Your task to perform on an android device: Open Chrome and go to settings Image 0: 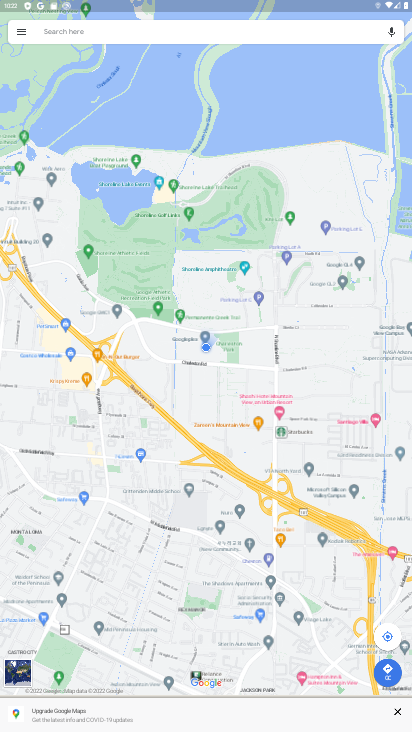
Step 0: press home button
Your task to perform on an android device: Open Chrome and go to settings Image 1: 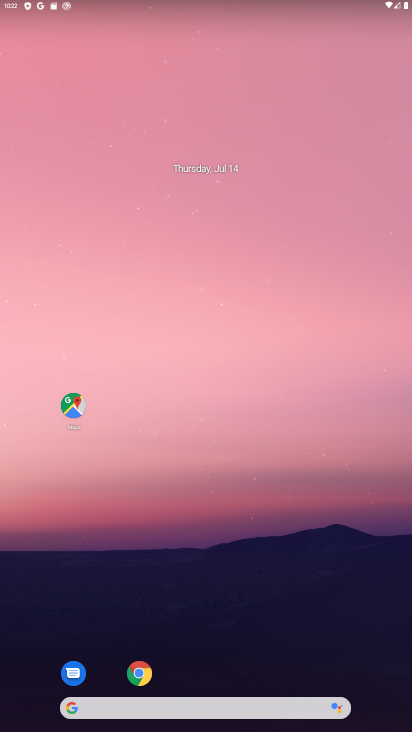
Step 1: drag from (291, 587) to (349, 76)
Your task to perform on an android device: Open Chrome and go to settings Image 2: 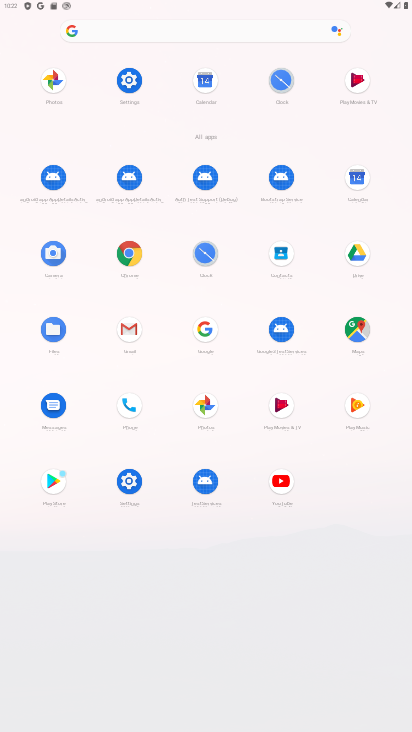
Step 2: click (123, 267)
Your task to perform on an android device: Open Chrome and go to settings Image 3: 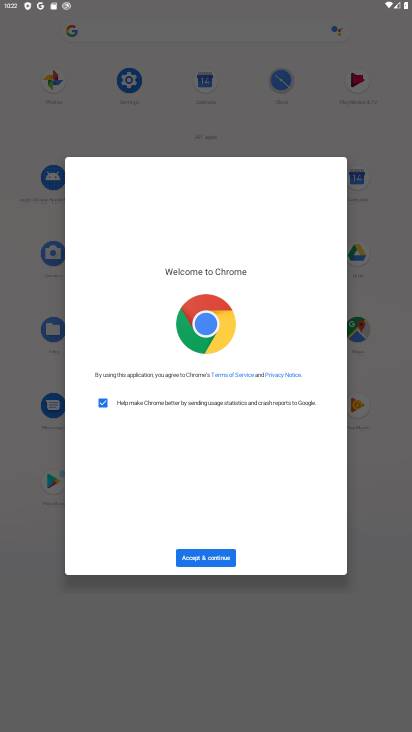
Step 3: click (215, 559)
Your task to perform on an android device: Open Chrome and go to settings Image 4: 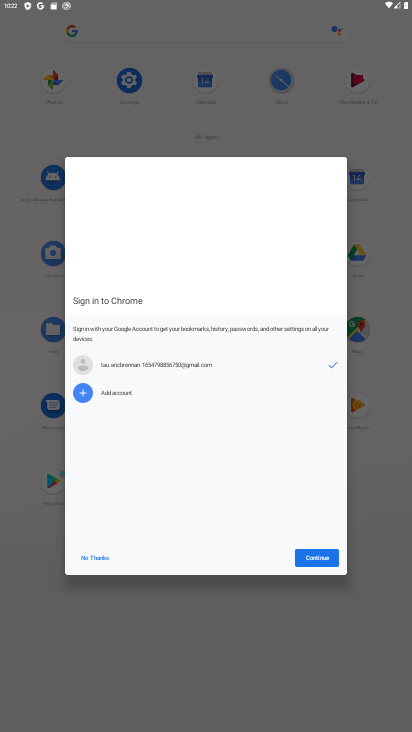
Step 4: click (95, 564)
Your task to perform on an android device: Open Chrome and go to settings Image 5: 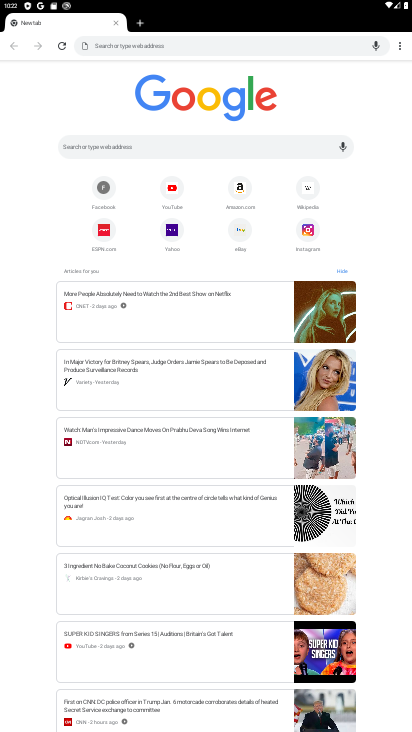
Step 5: drag from (406, 42) to (296, 213)
Your task to perform on an android device: Open Chrome and go to settings Image 6: 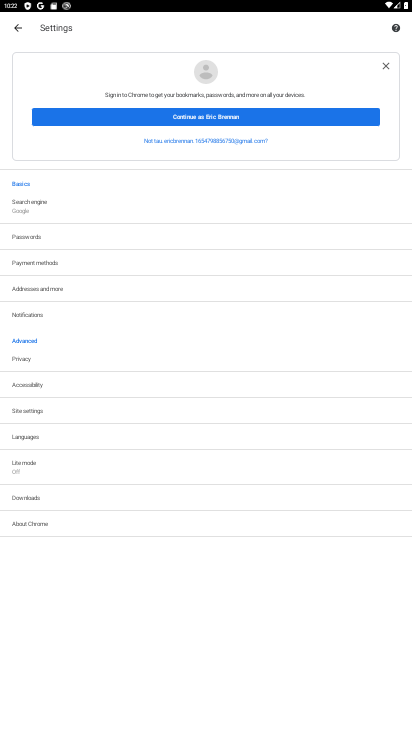
Step 6: click (191, 117)
Your task to perform on an android device: Open Chrome and go to settings Image 7: 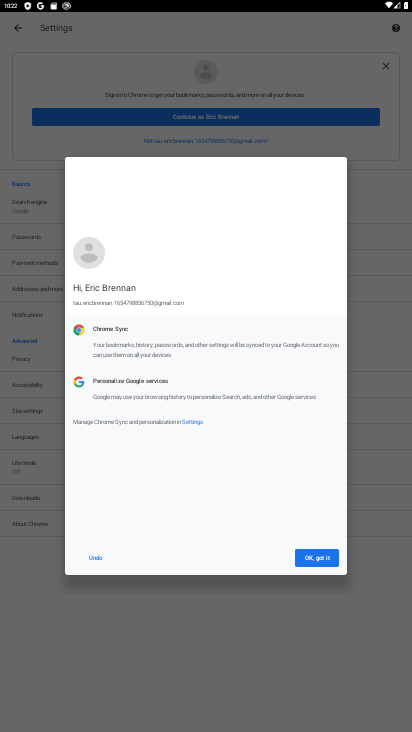
Step 7: click (334, 561)
Your task to perform on an android device: Open Chrome and go to settings Image 8: 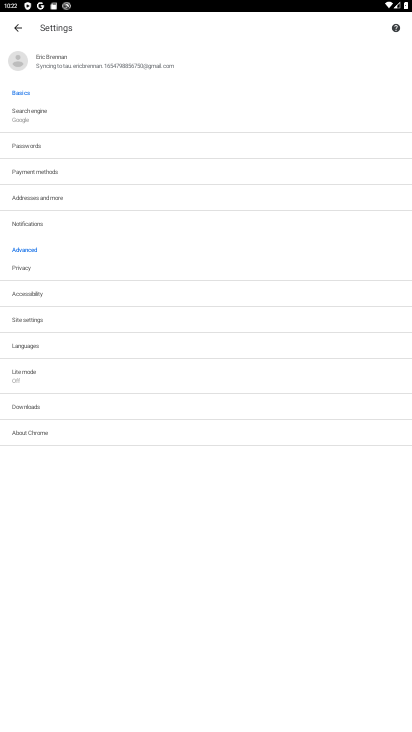
Step 8: task complete